Your task to perform on an android device: toggle wifi Image 0: 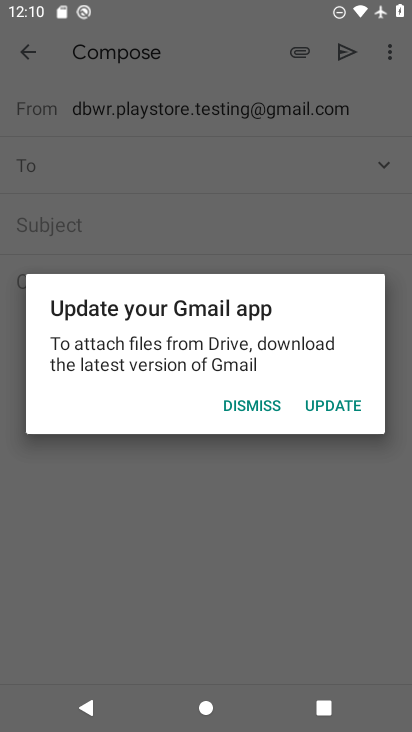
Step 0: press home button
Your task to perform on an android device: toggle wifi Image 1: 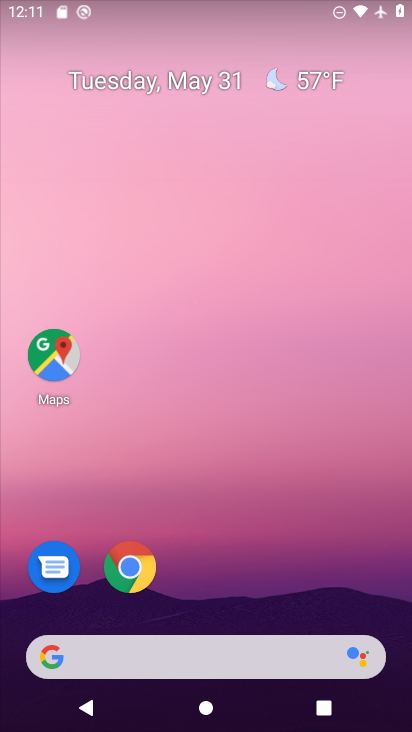
Step 1: drag from (231, 560) to (223, 239)
Your task to perform on an android device: toggle wifi Image 2: 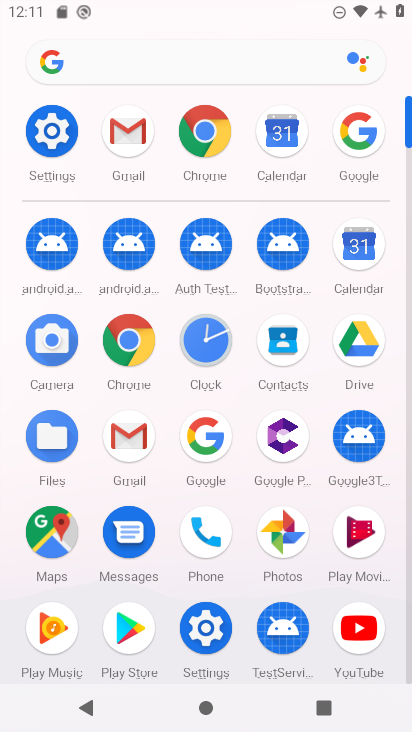
Step 2: click (41, 128)
Your task to perform on an android device: toggle wifi Image 3: 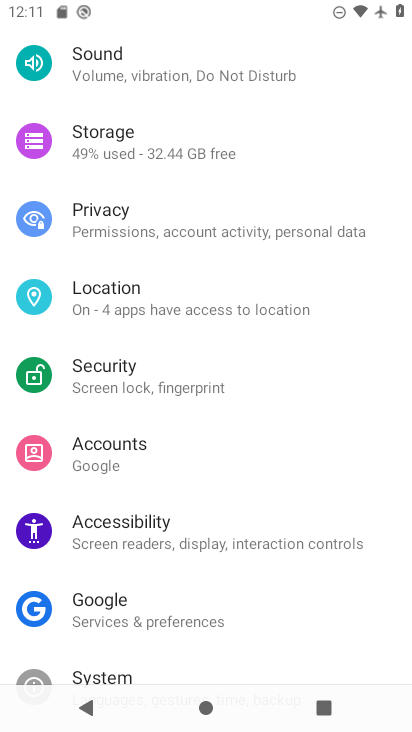
Step 3: drag from (197, 188) to (195, 505)
Your task to perform on an android device: toggle wifi Image 4: 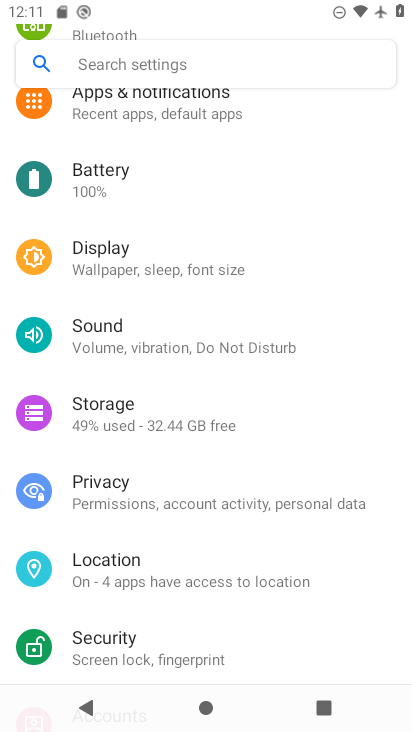
Step 4: drag from (130, 281) to (128, 726)
Your task to perform on an android device: toggle wifi Image 5: 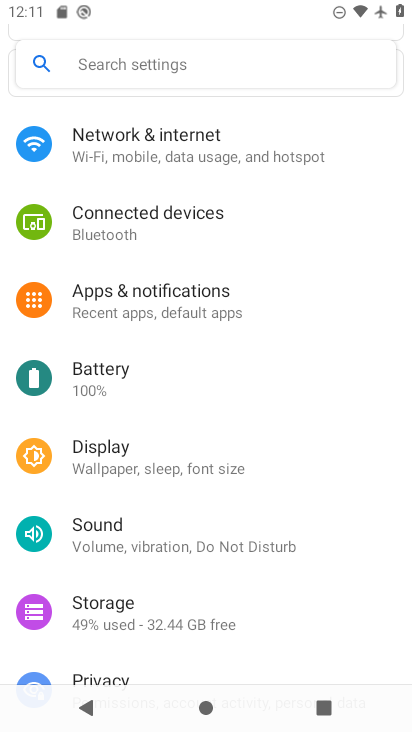
Step 5: click (125, 159)
Your task to perform on an android device: toggle wifi Image 6: 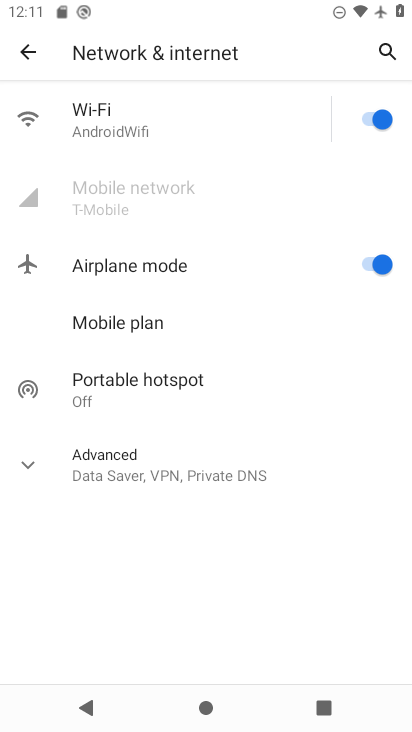
Step 6: click (362, 128)
Your task to perform on an android device: toggle wifi Image 7: 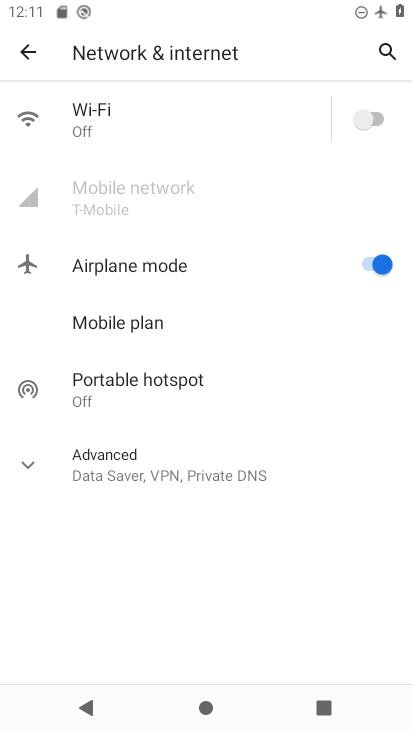
Step 7: task complete